Your task to perform on an android device: find photos in the google photos app Image 0: 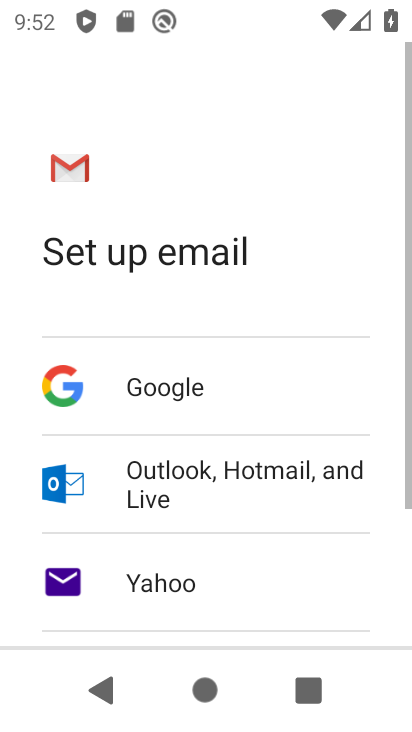
Step 0: press home button
Your task to perform on an android device: find photos in the google photos app Image 1: 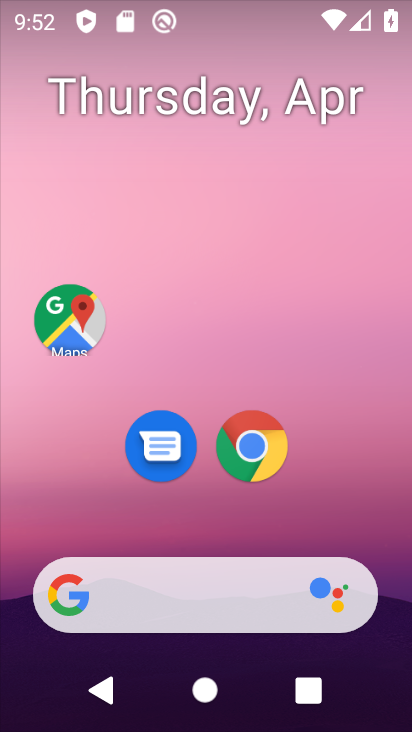
Step 1: drag from (360, 413) to (378, 65)
Your task to perform on an android device: find photos in the google photos app Image 2: 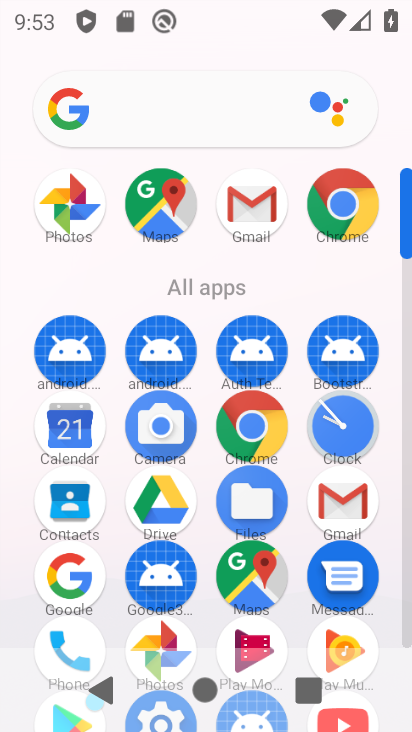
Step 2: click (89, 198)
Your task to perform on an android device: find photos in the google photos app Image 3: 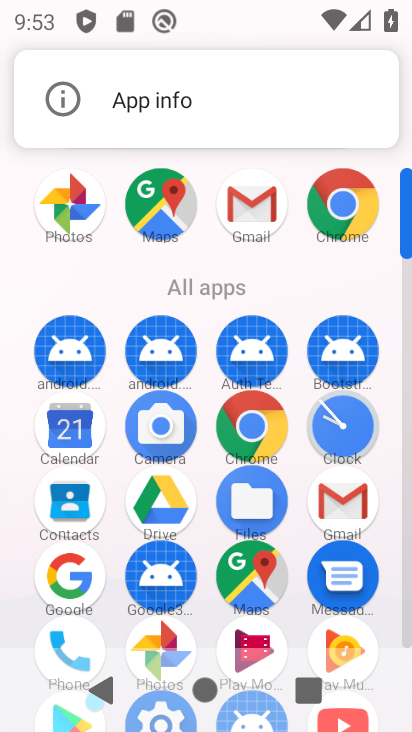
Step 3: click (79, 202)
Your task to perform on an android device: find photos in the google photos app Image 4: 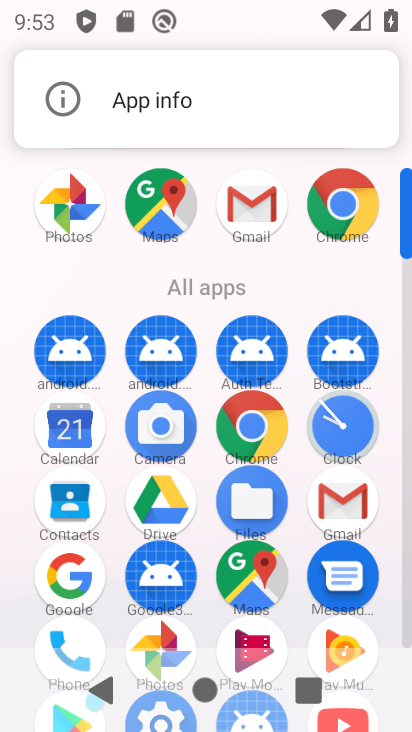
Step 4: click (79, 202)
Your task to perform on an android device: find photos in the google photos app Image 5: 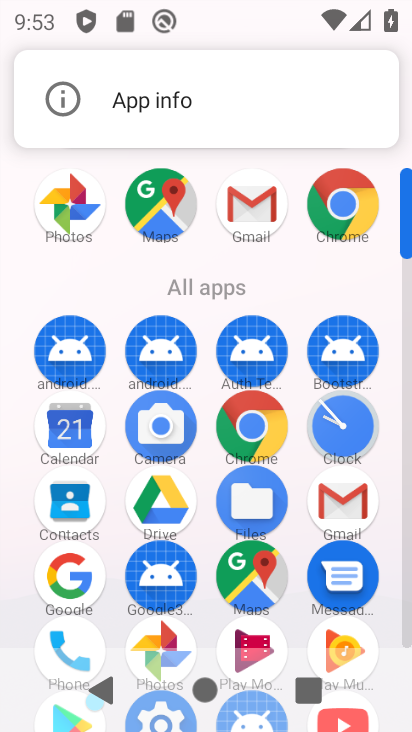
Step 5: click (79, 200)
Your task to perform on an android device: find photos in the google photos app Image 6: 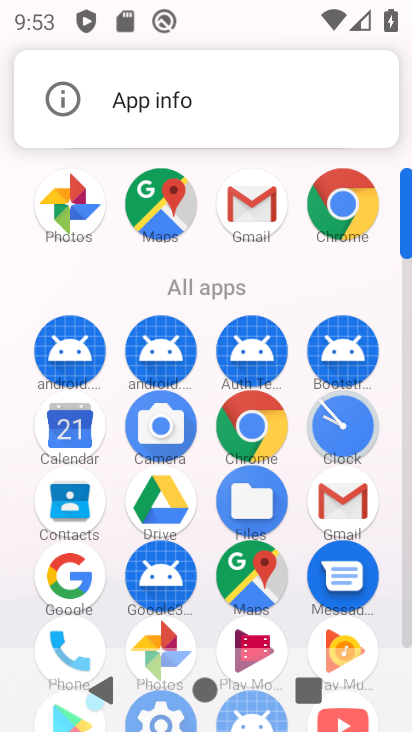
Step 6: click (79, 200)
Your task to perform on an android device: find photos in the google photos app Image 7: 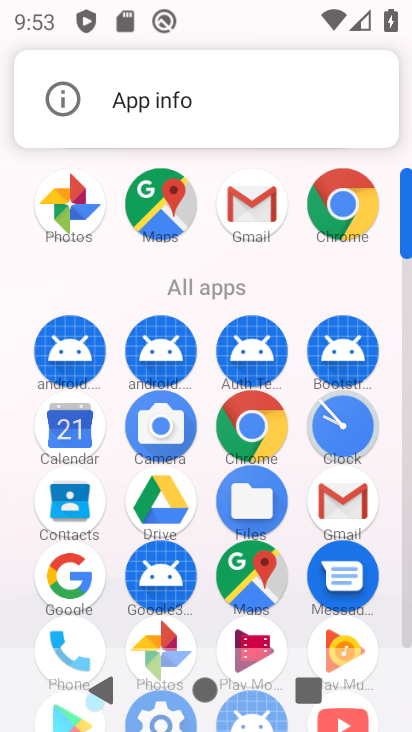
Step 7: click (79, 200)
Your task to perform on an android device: find photos in the google photos app Image 8: 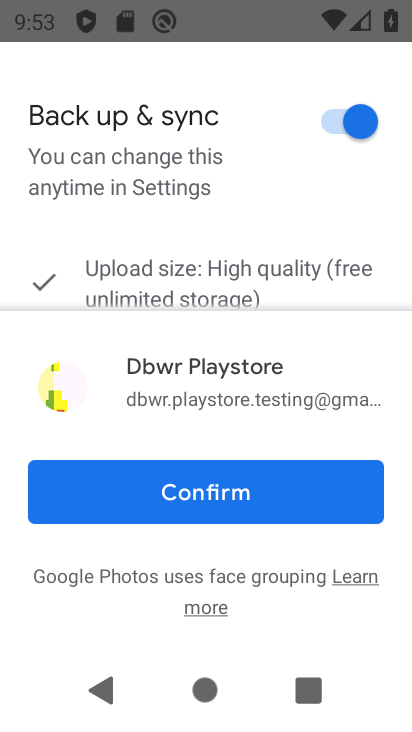
Step 8: click (203, 508)
Your task to perform on an android device: find photos in the google photos app Image 9: 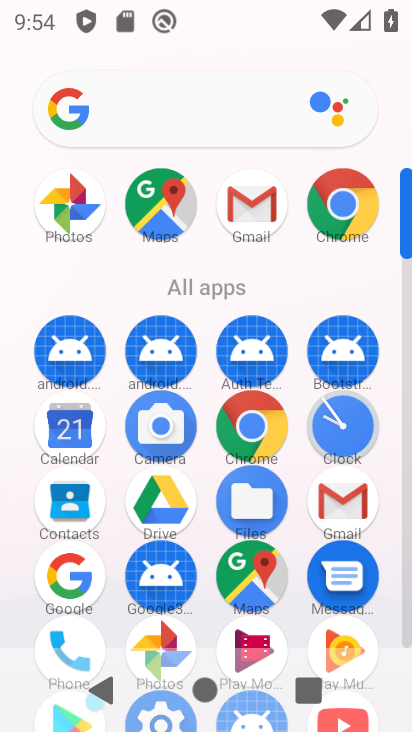
Step 9: click (74, 194)
Your task to perform on an android device: find photos in the google photos app Image 10: 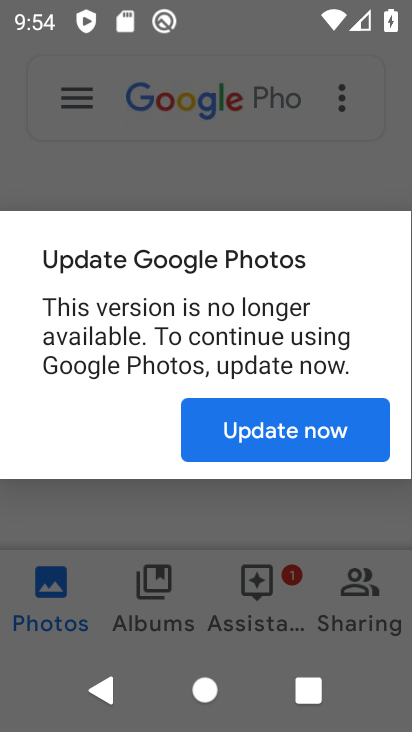
Step 10: click (326, 435)
Your task to perform on an android device: find photos in the google photos app Image 11: 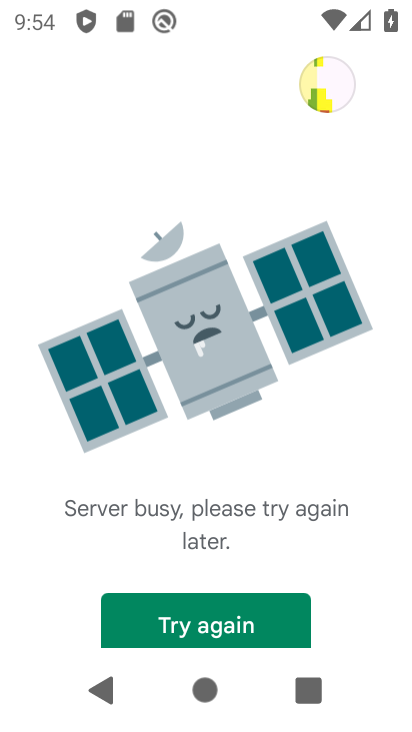
Step 11: click (241, 636)
Your task to perform on an android device: find photos in the google photos app Image 12: 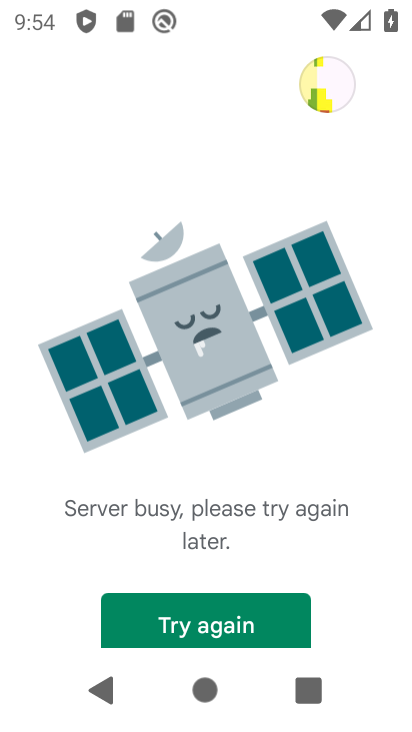
Step 12: task complete